Your task to perform on an android device: Open Wikipedia Image 0: 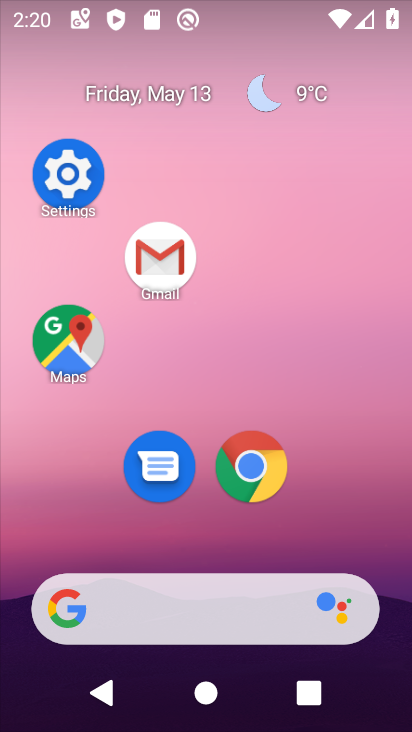
Step 0: click (251, 480)
Your task to perform on an android device: Open Wikipedia Image 1: 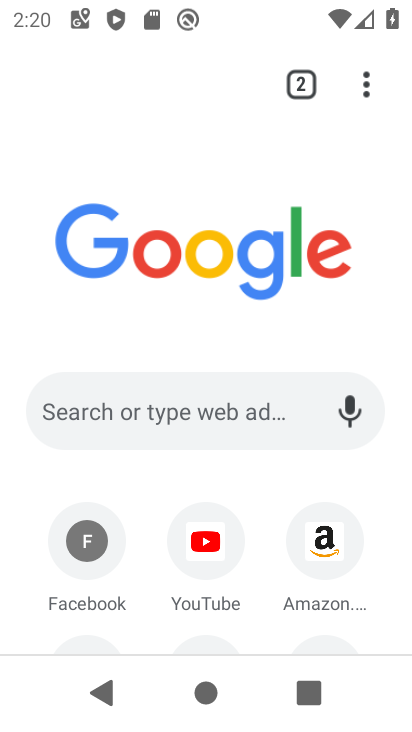
Step 1: drag from (208, 511) to (271, 229)
Your task to perform on an android device: Open Wikipedia Image 2: 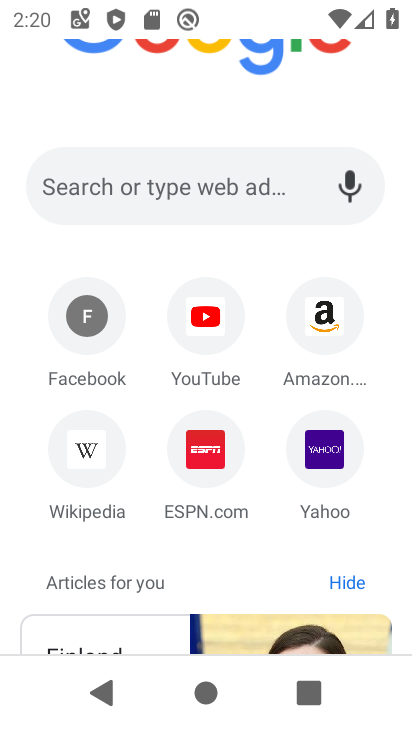
Step 2: click (109, 453)
Your task to perform on an android device: Open Wikipedia Image 3: 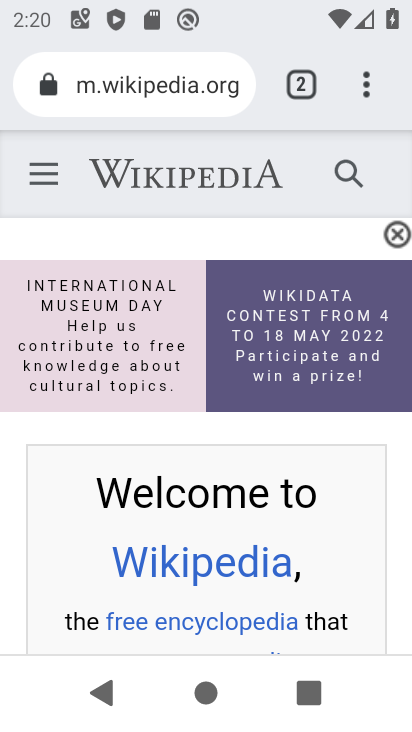
Step 3: task complete